Your task to perform on an android device: Open the stopwatch Image 0: 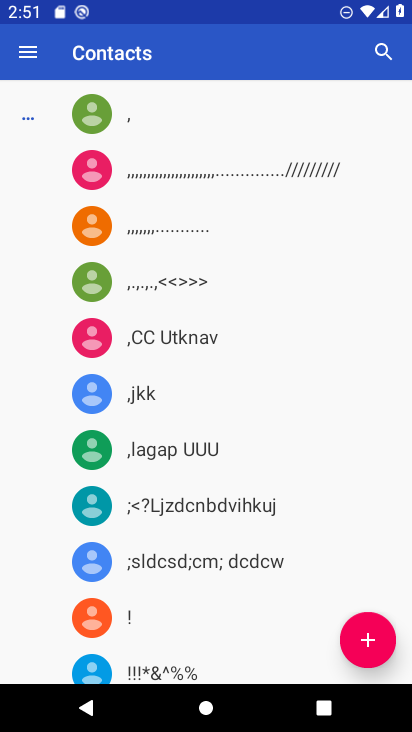
Step 0: press home button
Your task to perform on an android device: Open the stopwatch Image 1: 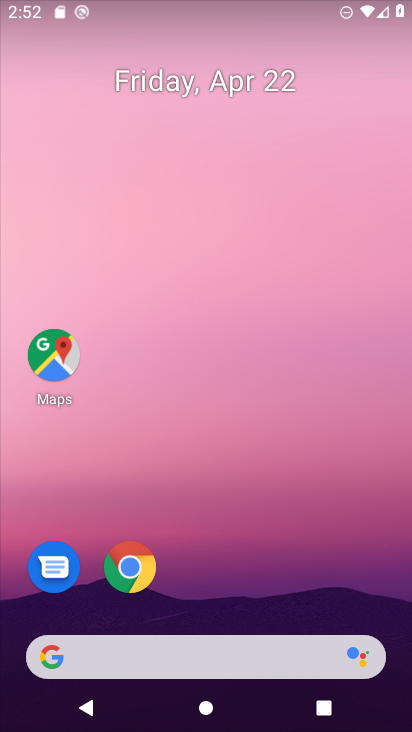
Step 1: drag from (238, 561) to (261, 65)
Your task to perform on an android device: Open the stopwatch Image 2: 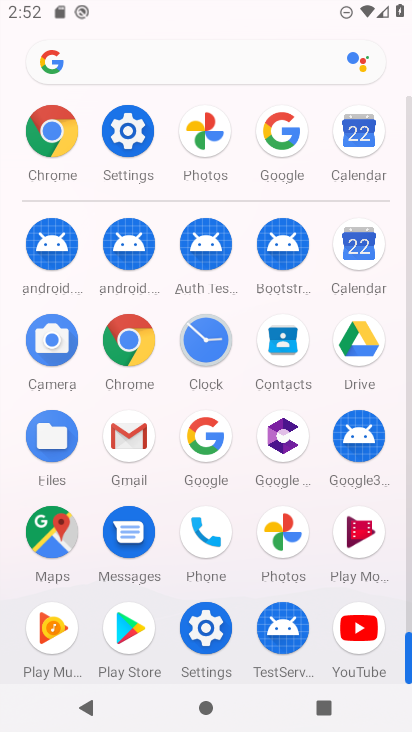
Step 2: click (193, 336)
Your task to perform on an android device: Open the stopwatch Image 3: 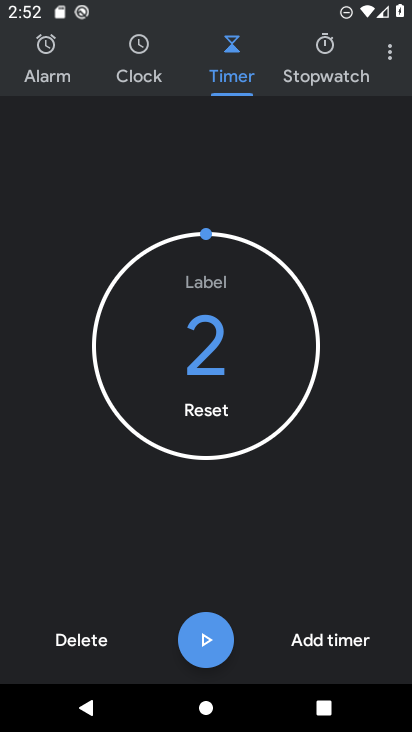
Step 3: click (319, 46)
Your task to perform on an android device: Open the stopwatch Image 4: 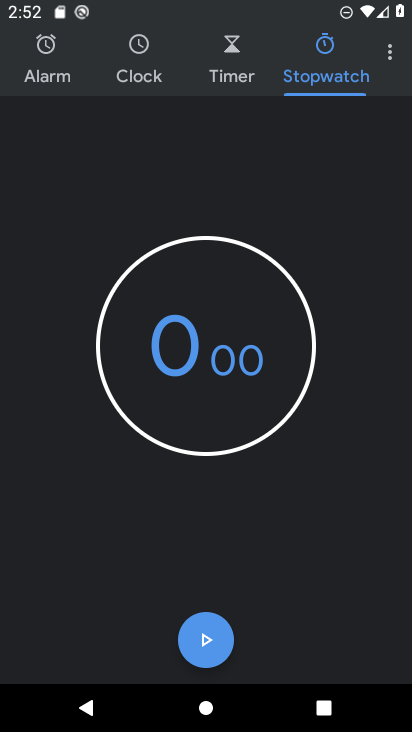
Step 4: task complete